Your task to perform on an android device: Open Google Chrome and open the bookmarks view Image 0: 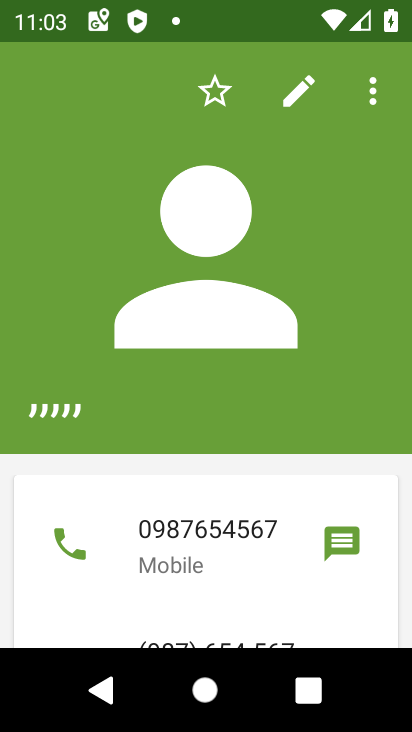
Step 0: press home button
Your task to perform on an android device: Open Google Chrome and open the bookmarks view Image 1: 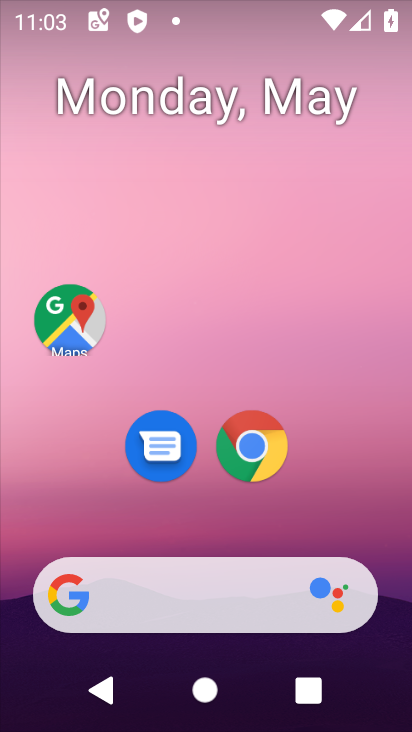
Step 1: click (259, 436)
Your task to perform on an android device: Open Google Chrome and open the bookmarks view Image 2: 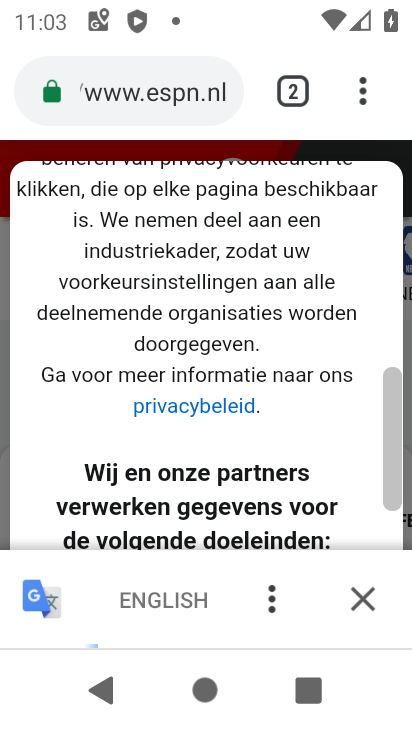
Step 2: task complete